Your task to perform on an android device: Open Wikipedia Image 0: 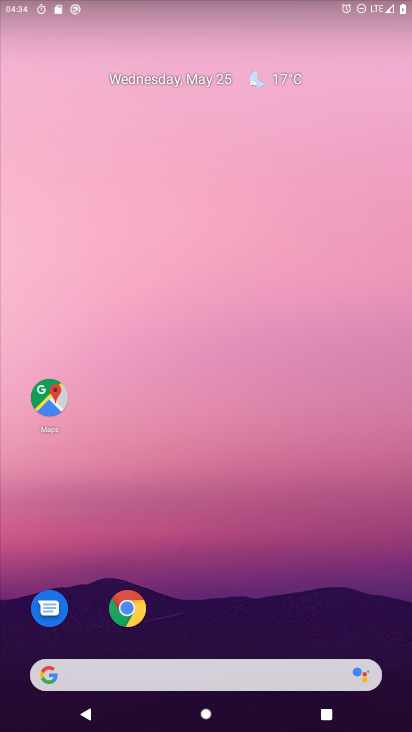
Step 0: drag from (273, 581) to (268, 132)
Your task to perform on an android device: Open Wikipedia Image 1: 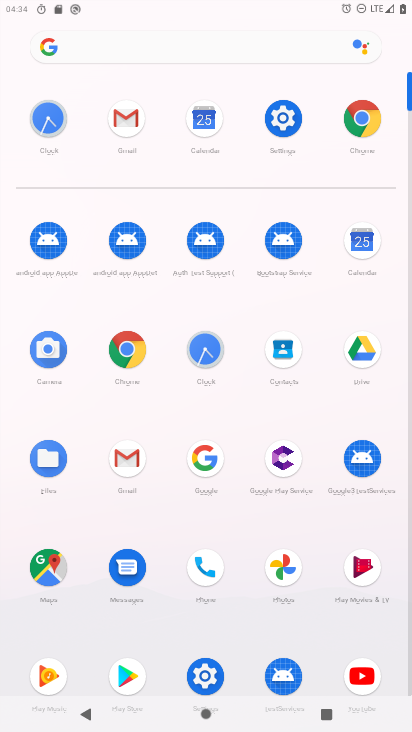
Step 1: click (128, 344)
Your task to perform on an android device: Open Wikipedia Image 2: 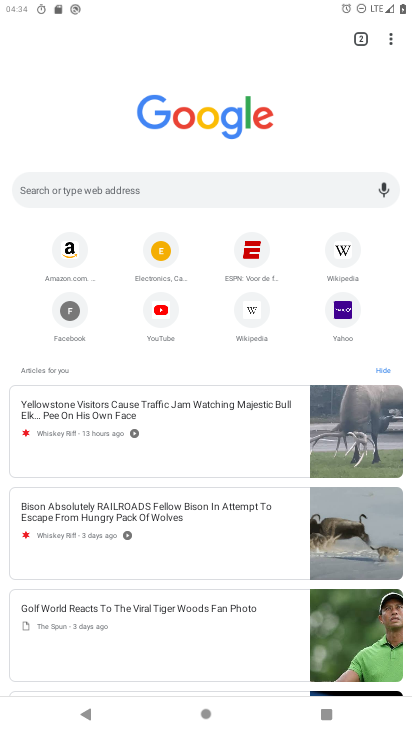
Step 2: click (251, 311)
Your task to perform on an android device: Open Wikipedia Image 3: 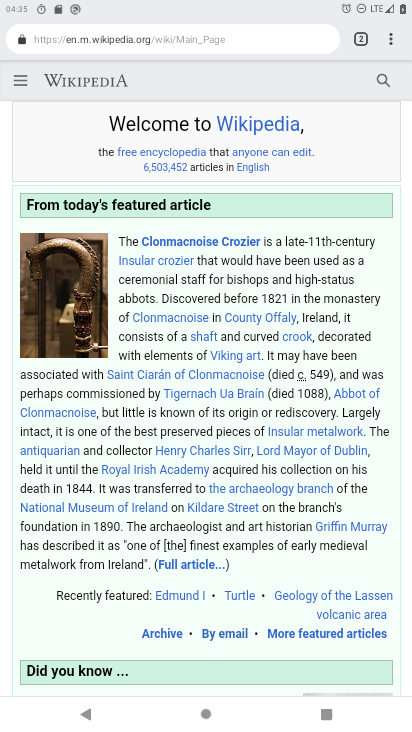
Step 3: task complete